Your task to perform on an android device: Is it going to rain this weekend? Image 0: 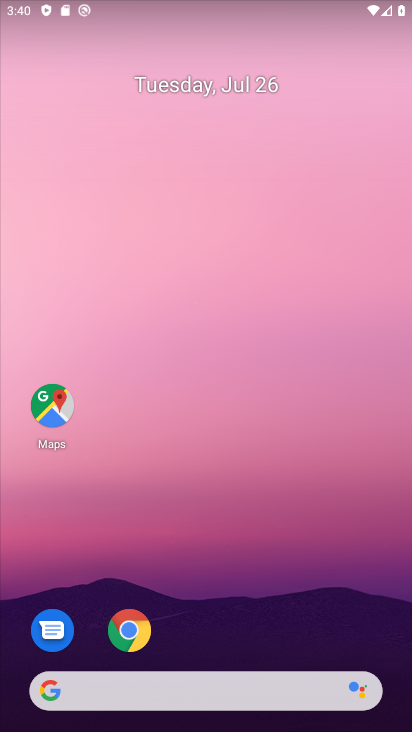
Step 0: drag from (274, 668) to (216, 228)
Your task to perform on an android device: Is it going to rain this weekend? Image 1: 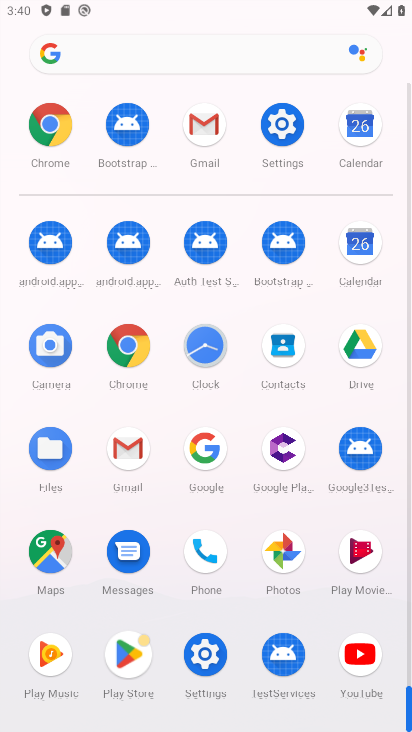
Step 1: click (119, 349)
Your task to perform on an android device: Is it going to rain this weekend? Image 2: 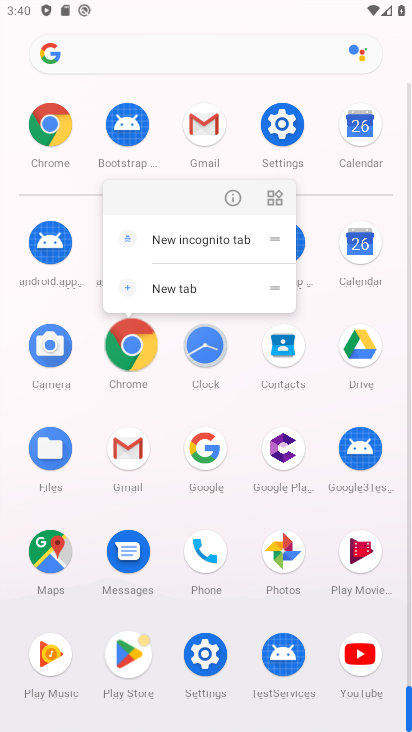
Step 2: click (126, 345)
Your task to perform on an android device: Is it going to rain this weekend? Image 3: 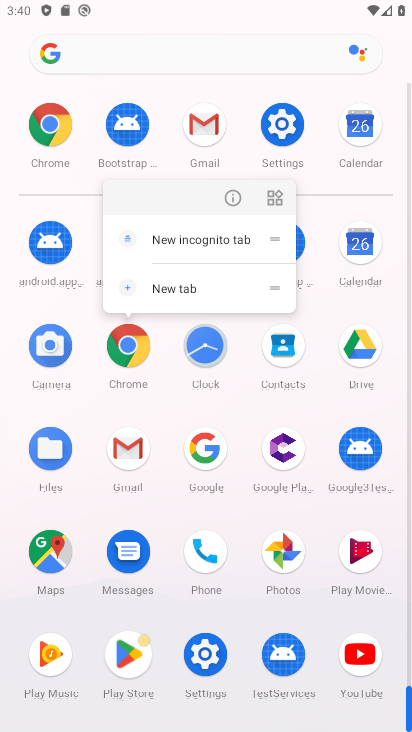
Step 3: click (126, 345)
Your task to perform on an android device: Is it going to rain this weekend? Image 4: 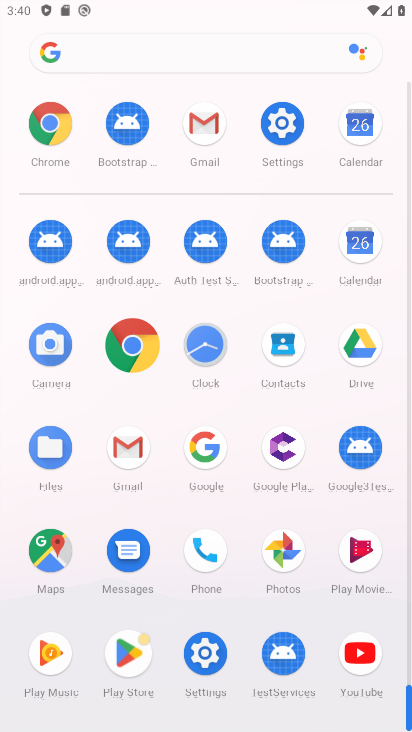
Step 4: click (126, 345)
Your task to perform on an android device: Is it going to rain this weekend? Image 5: 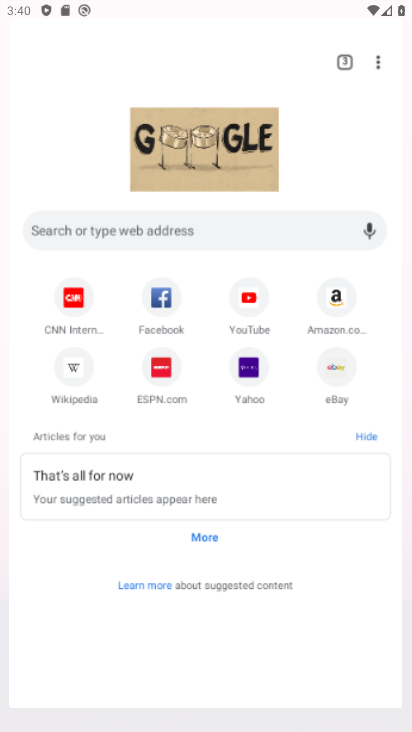
Step 5: click (126, 345)
Your task to perform on an android device: Is it going to rain this weekend? Image 6: 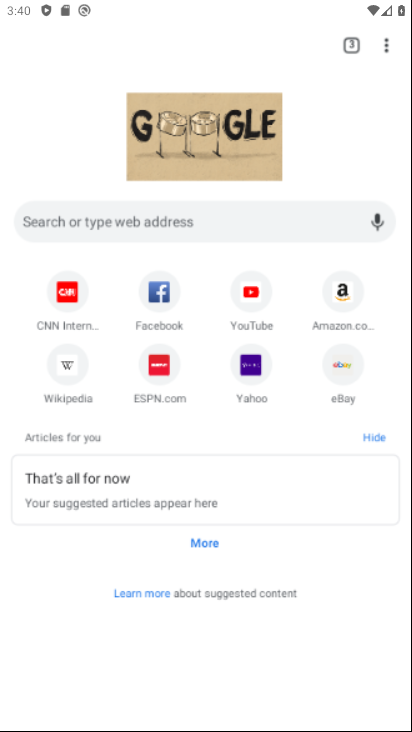
Step 6: click (126, 344)
Your task to perform on an android device: Is it going to rain this weekend? Image 7: 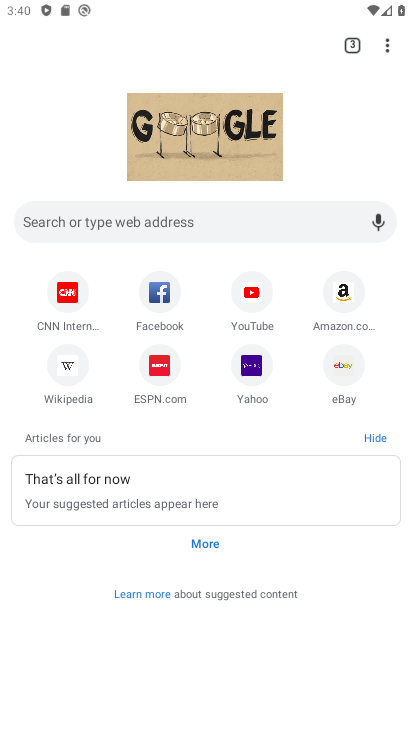
Step 7: click (88, 223)
Your task to perform on an android device: Is it going to rain this weekend? Image 8: 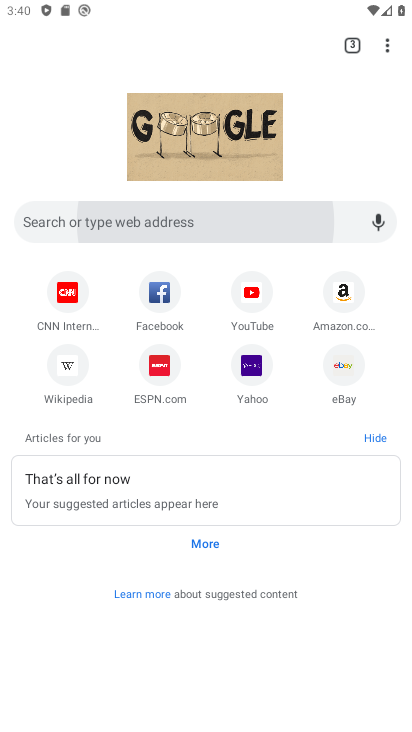
Step 8: click (88, 223)
Your task to perform on an android device: Is it going to rain this weekend? Image 9: 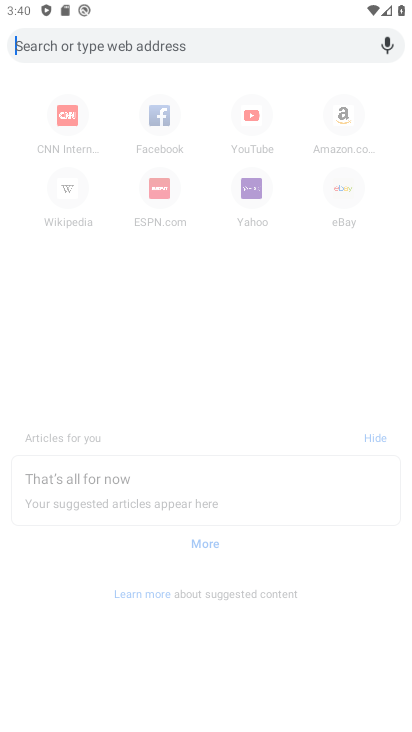
Step 9: click (91, 222)
Your task to perform on an android device: Is it going to rain this weekend? Image 10: 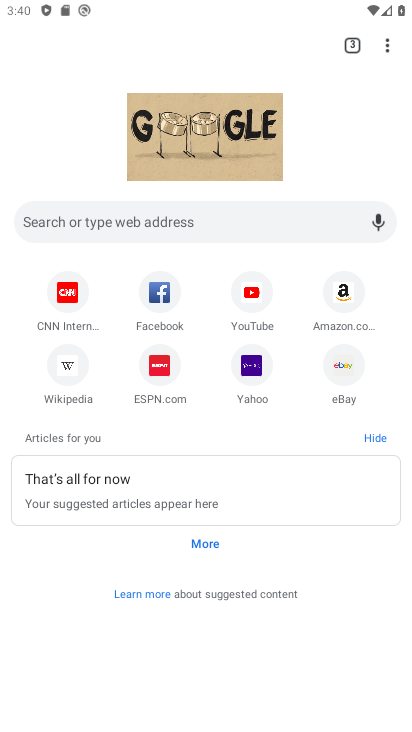
Step 10: click (30, 235)
Your task to perform on an android device: Is it going to rain this weekend? Image 11: 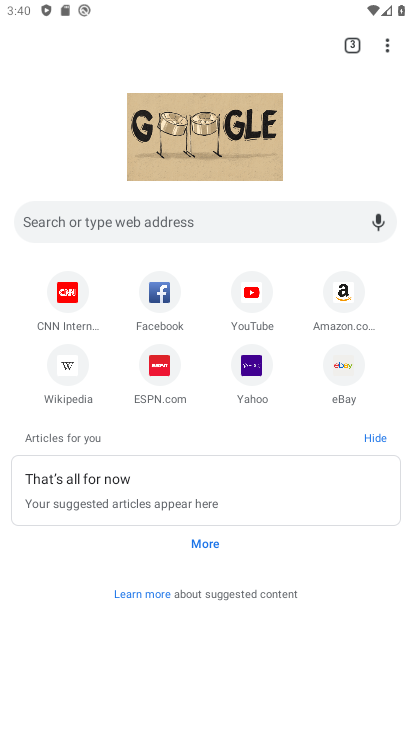
Step 11: click (30, 235)
Your task to perform on an android device: Is it going to rain this weekend? Image 12: 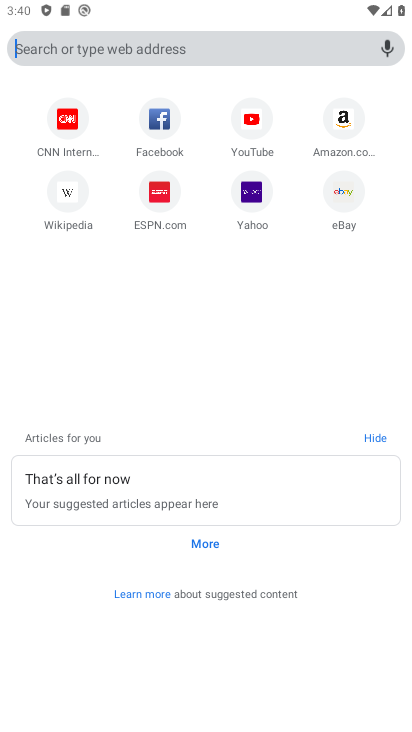
Step 12: click (30, 235)
Your task to perform on an android device: Is it going to rain this weekend? Image 13: 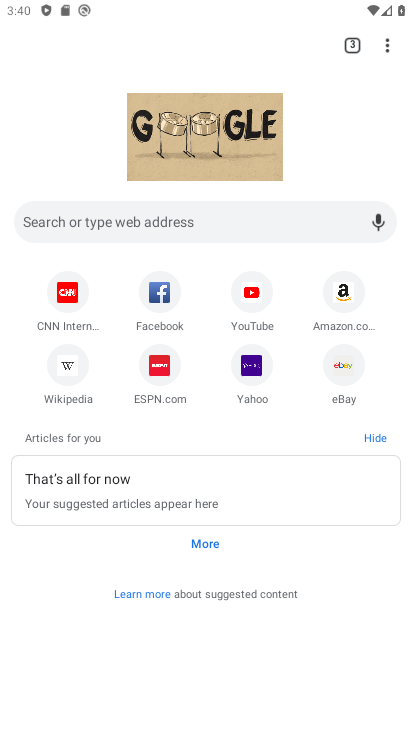
Step 13: click (44, 220)
Your task to perform on an android device: Is it going to rain this weekend? Image 14: 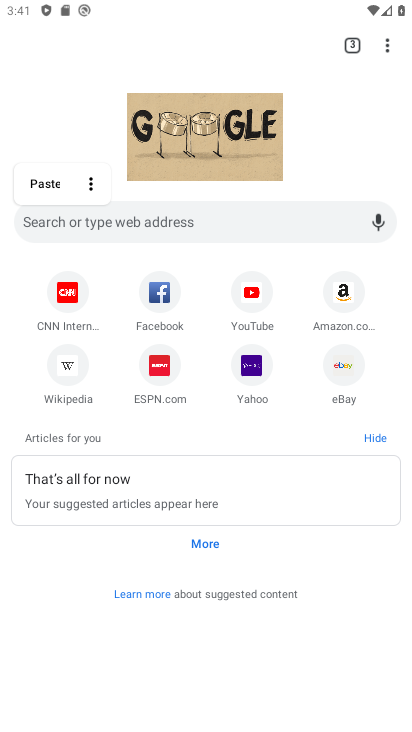
Step 14: type "rain today?"
Your task to perform on an android device: Is it going to rain this weekend? Image 15: 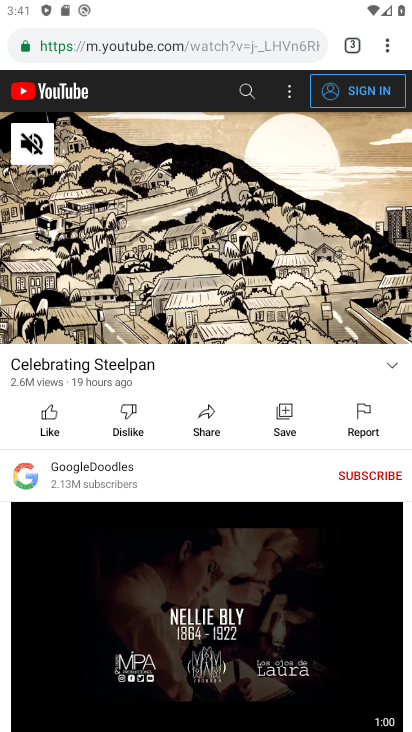
Step 15: task complete